Your task to perform on an android device: Search for pizza restaurants on Maps Image 0: 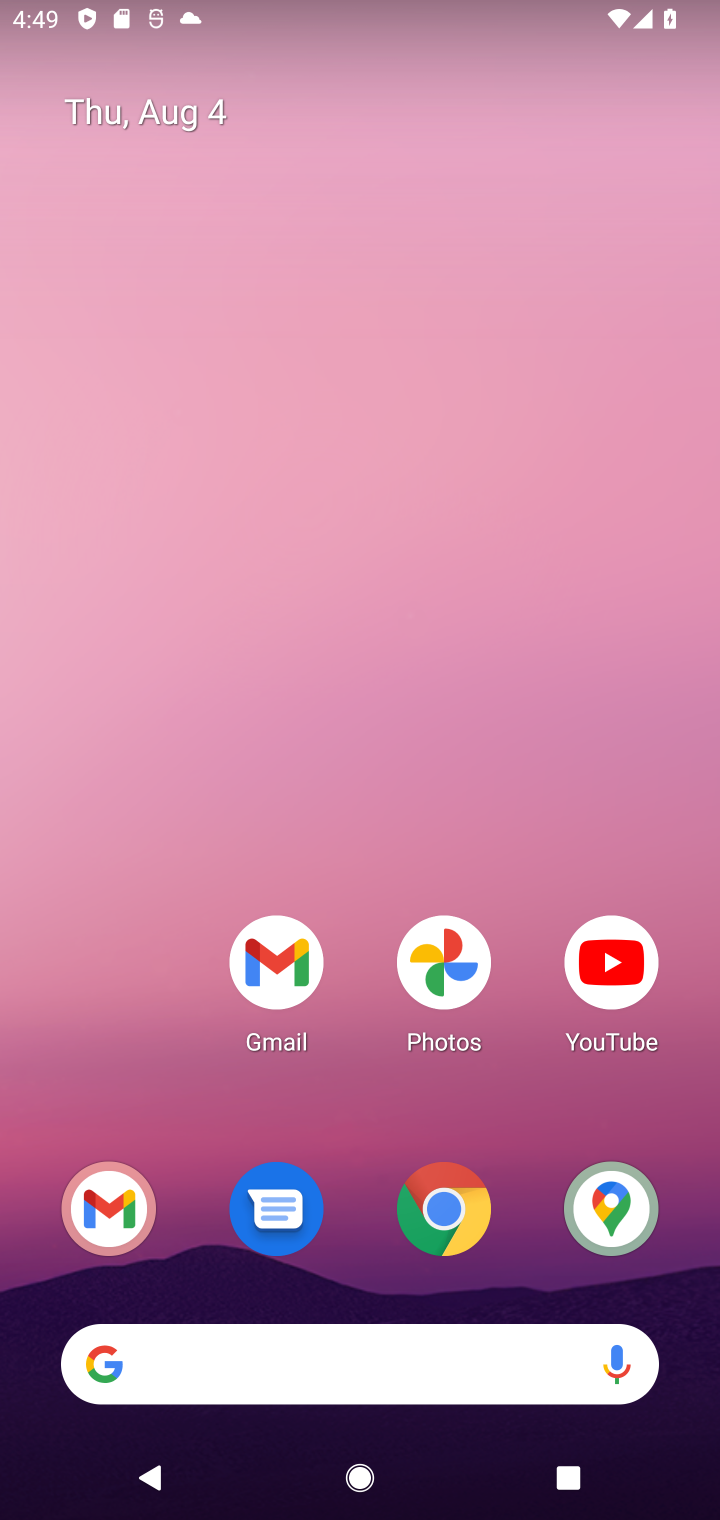
Step 0: click (612, 1225)
Your task to perform on an android device: Search for pizza restaurants on Maps Image 1: 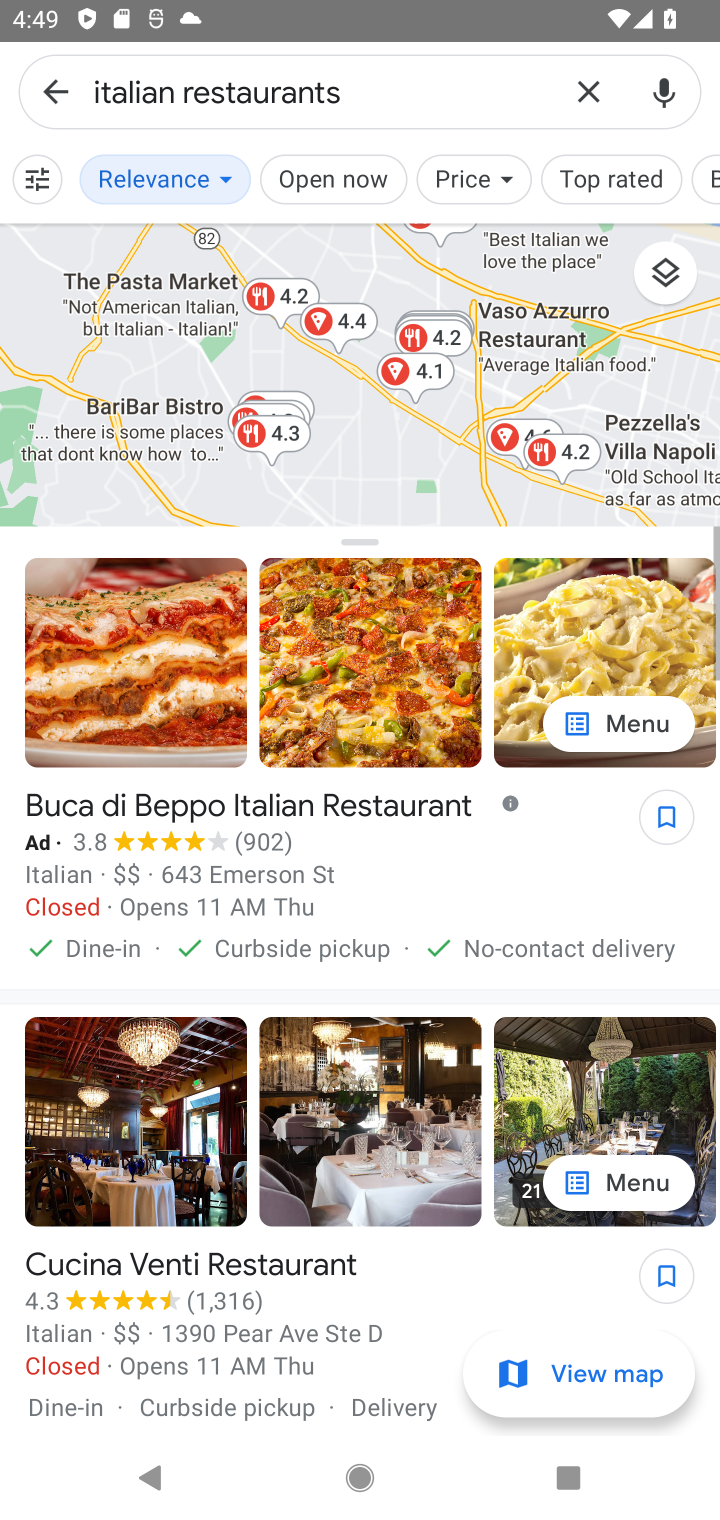
Step 1: click (61, 113)
Your task to perform on an android device: Search for pizza restaurants on Maps Image 2: 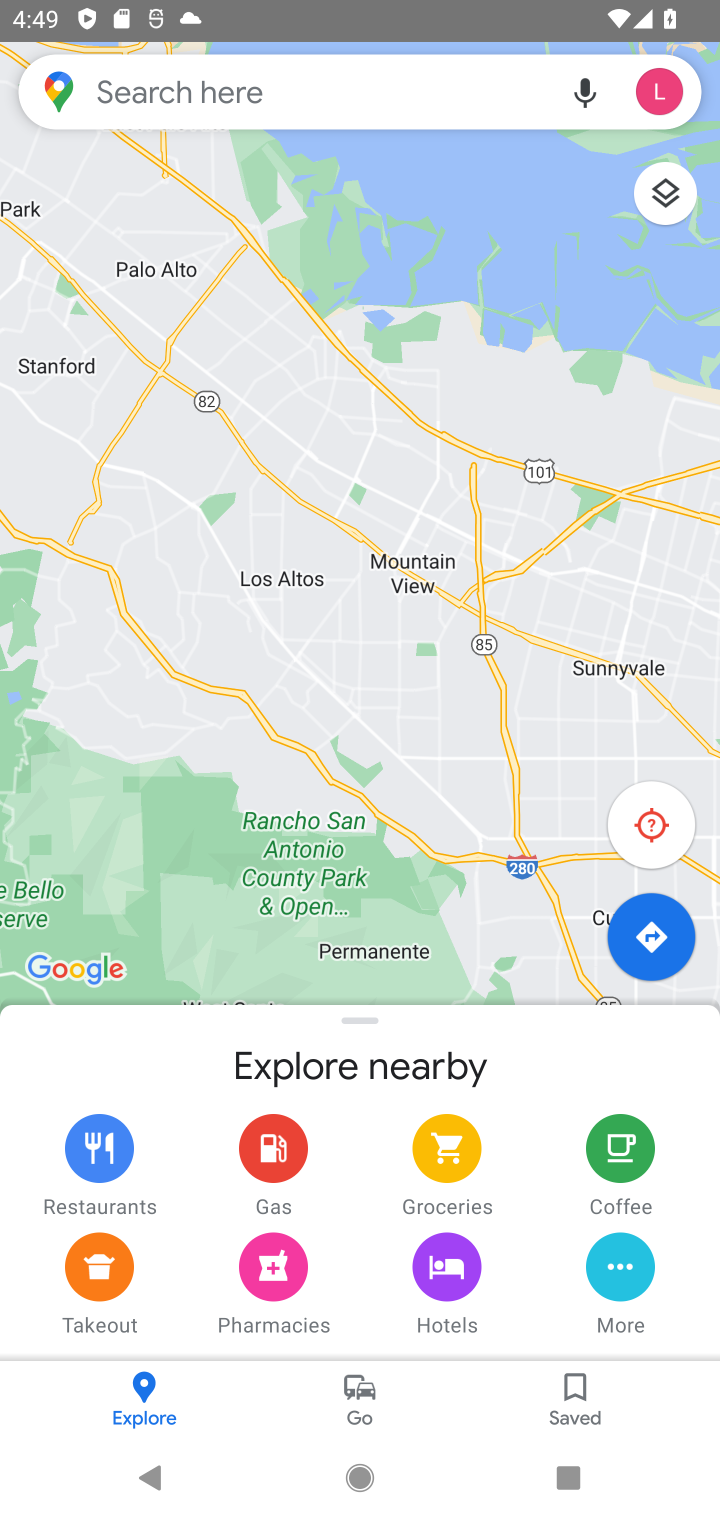
Step 2: click (239, 80)
Your task to perform on an android device: Search for pizza restaurants on Maps Image 3: 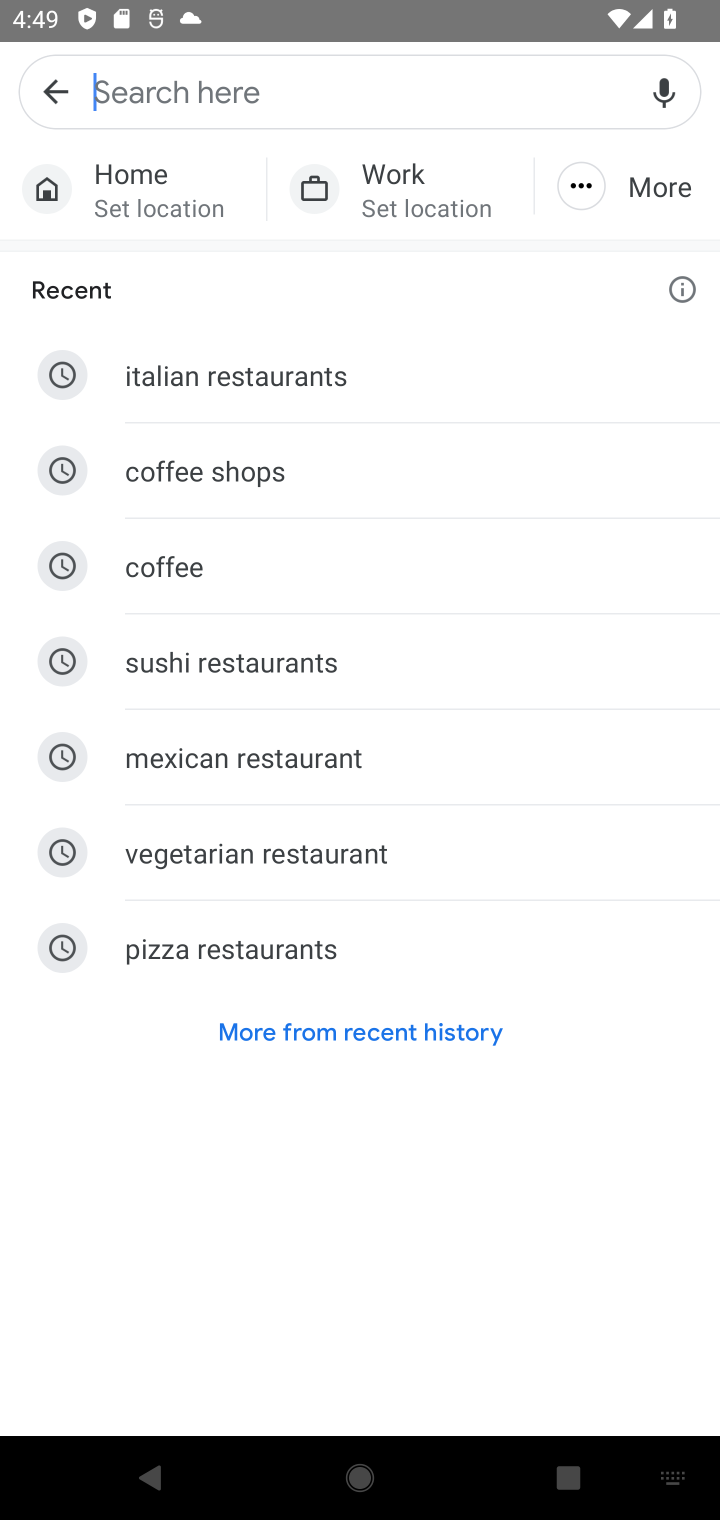
Step 3: type "pizza restaurants"
Your task to perform on an android device: Search for pizza restaurants on Maps Image 4: 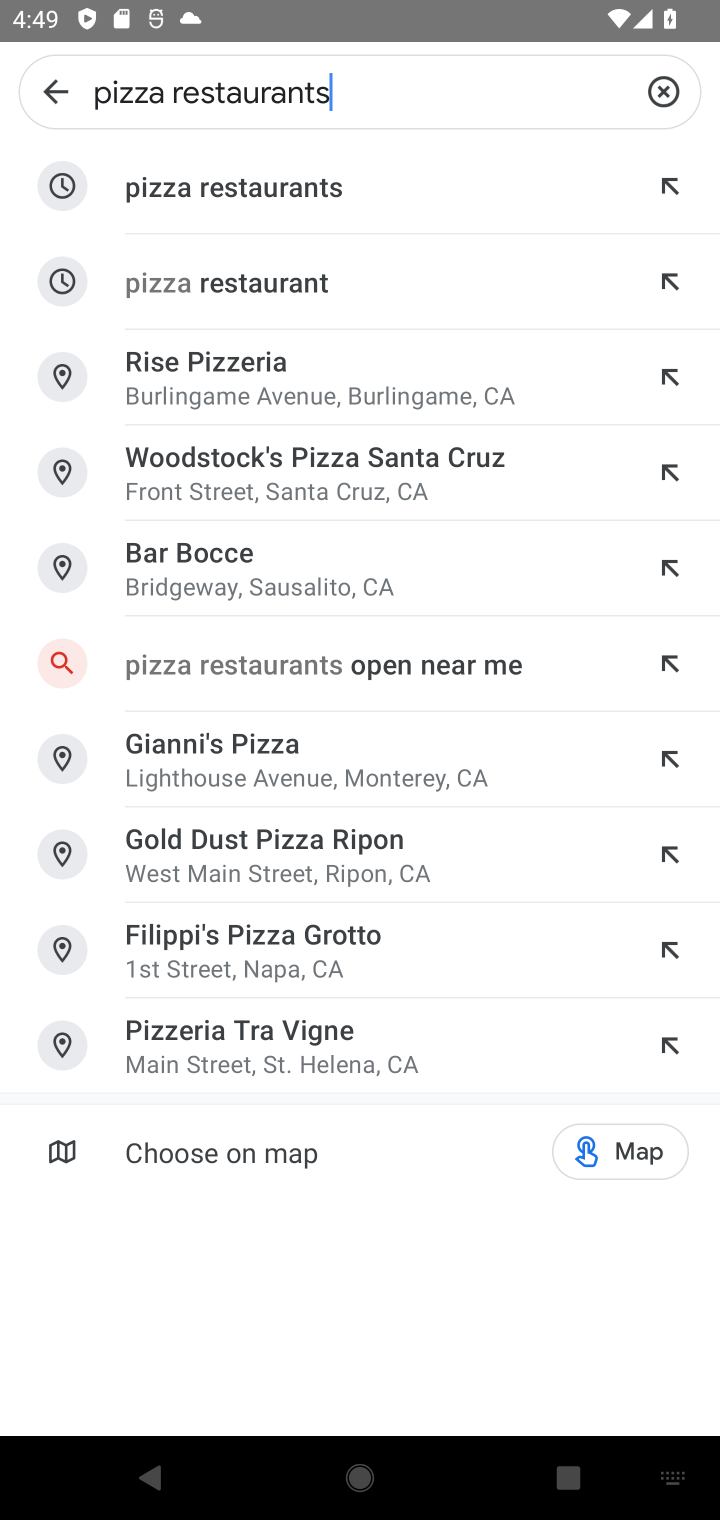
Step 4: click (271, 199)
Your task to perform on an android device: Search for pizza restaurants on Maps Image 5: 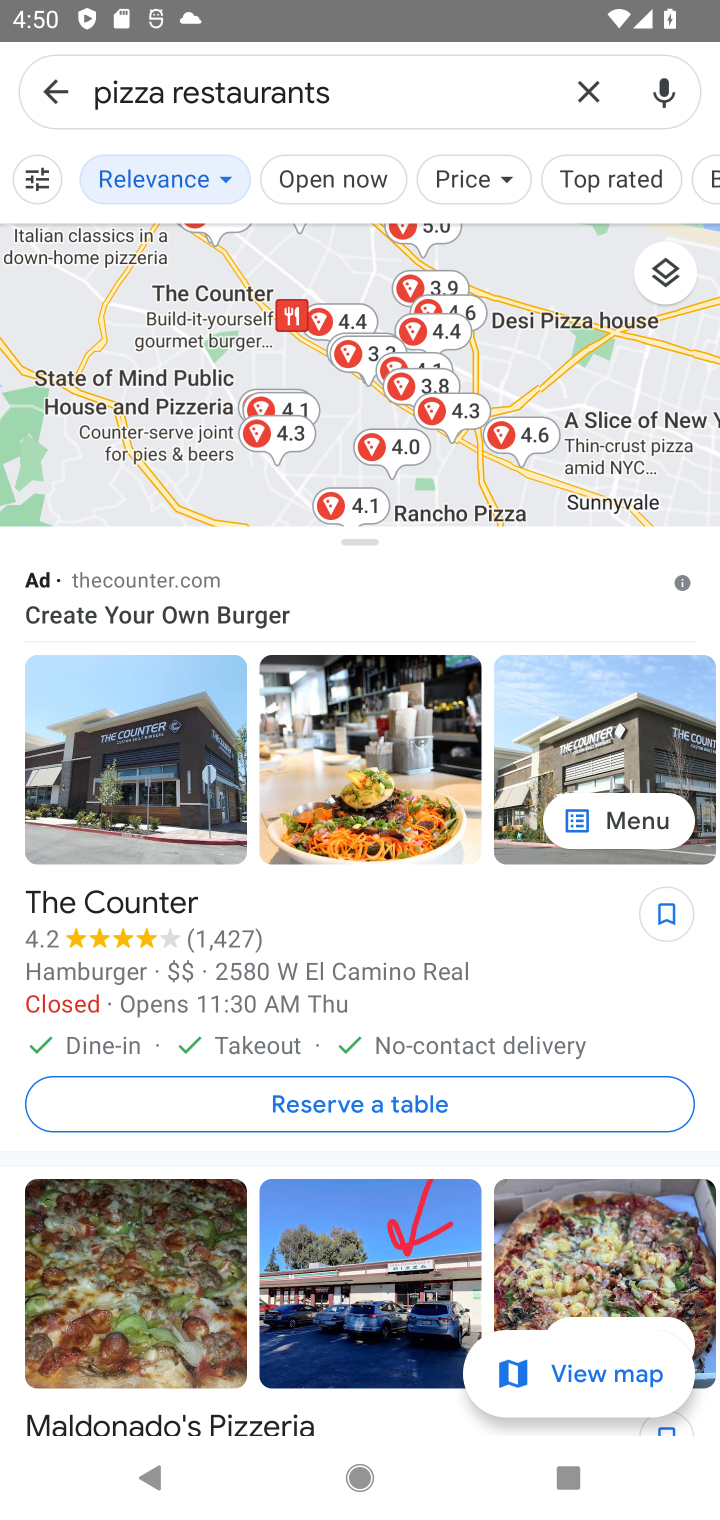
Step 5: task complete